Your task to perform on an android device: Open Reddit.com Image 0: 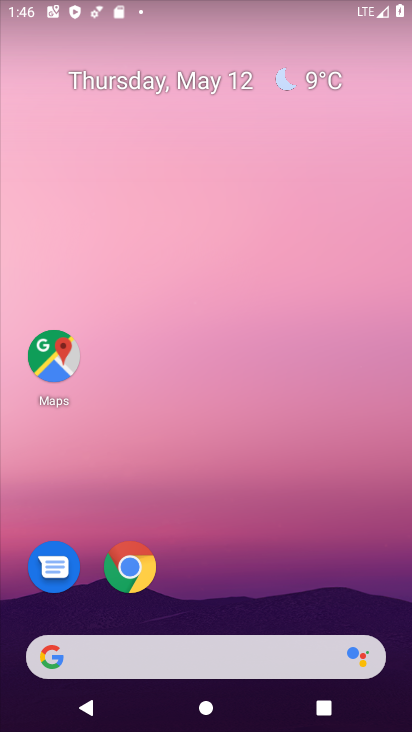
Step 0: click (131, 580)
Your task to perform on an android device: Open Reddit.com Image 1: 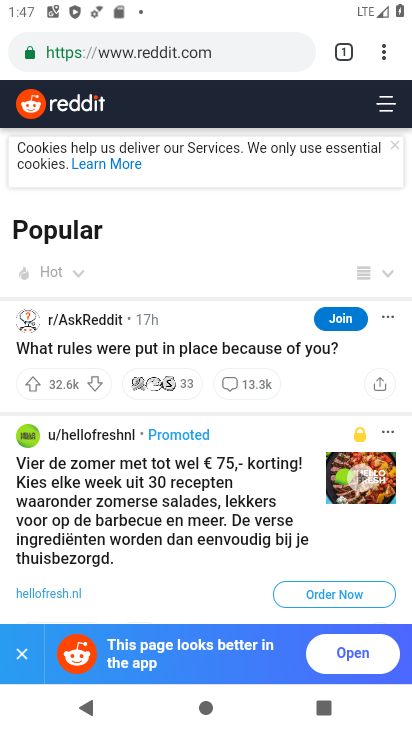
Step 1: task complete